Your task to perform on an android device: find snoozed emails in the gmail app Image 0: 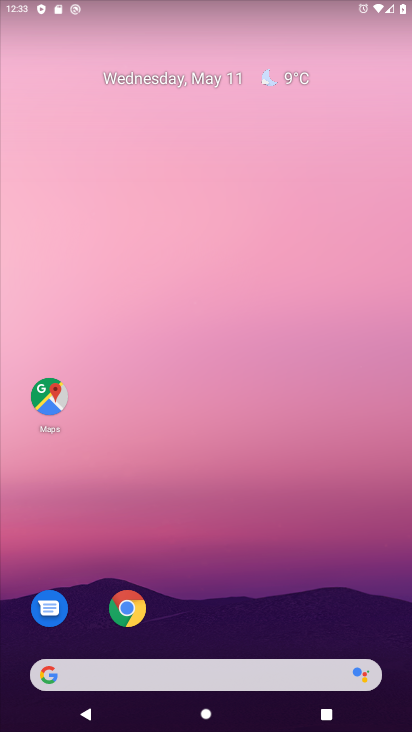
Step 0: drag from (273, 564) to (238, 398)
Your task to perform on an android device: find snoozed emails in the gmail app Image 1: 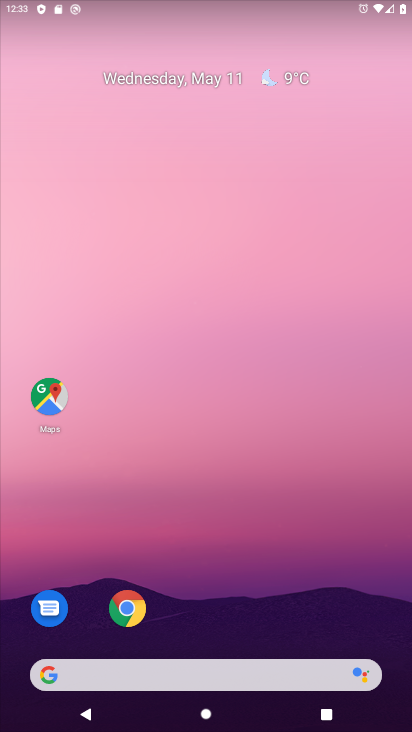
Step 1: drag from (256, 587) to (309, 364)
Your task to perform on an android device: find snoozed emails in the gmail app Image 2: 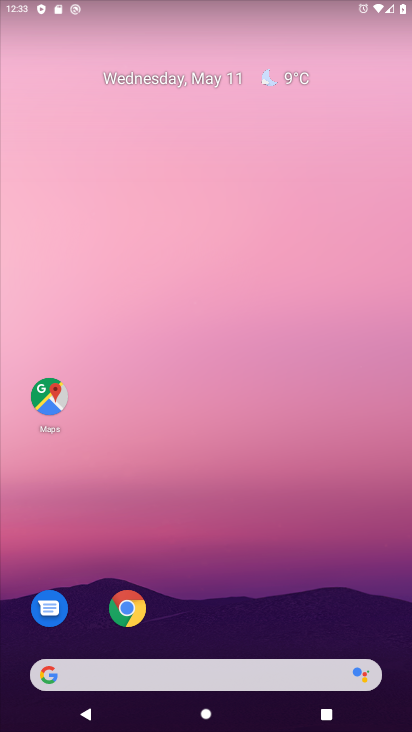
Step 2: drag from (284, 527) to (269, 347)
Your task to perform on an android device: find snoozed emails in the gmail app Image 3: 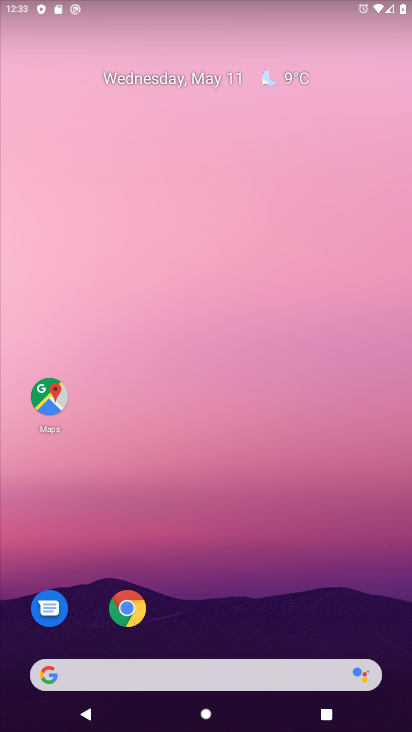
Step 3: drag from (239, 645) to (249, 342)
Your task to perform on an android device: find snoozed emails in the gmail app Image 4: 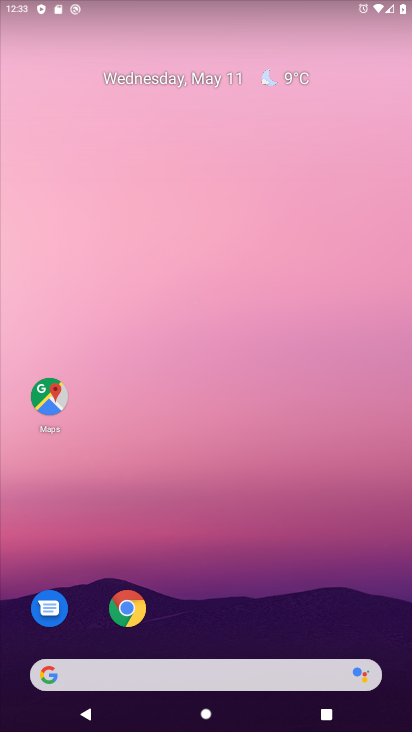
Step 4: drag from (267, 646) to (272, 324)
Your task to perform on an android device: find snoozed emails in the gmail app Image 5: 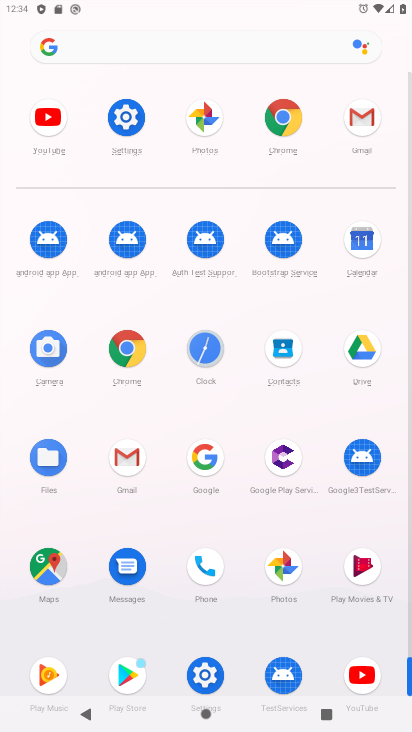
Step 5: click (150, 473)
Your task to perform on an android device: find snoozed emails in the gmail app Image 6: 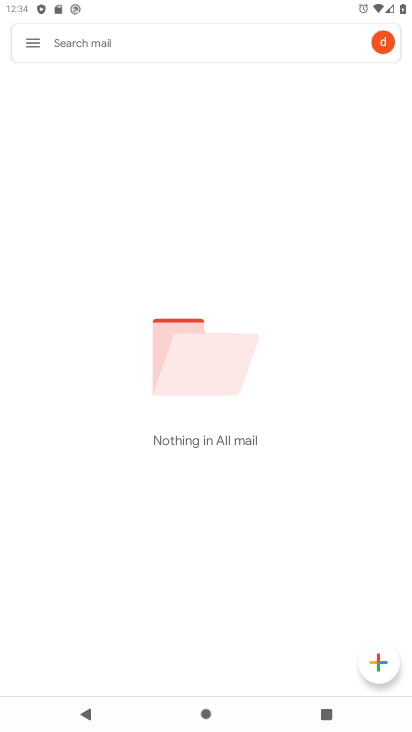
Step 6: click (32, 46)
Your task to perform on an android device: find snoozed emails in the gmail app Image 7: 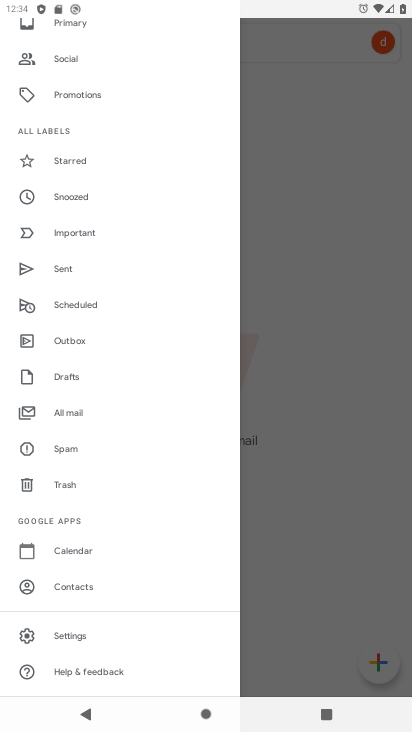
Step 7: click (68, 199)
Your task to perform on an android device: find snoozed emails in the gmail app Image 8: 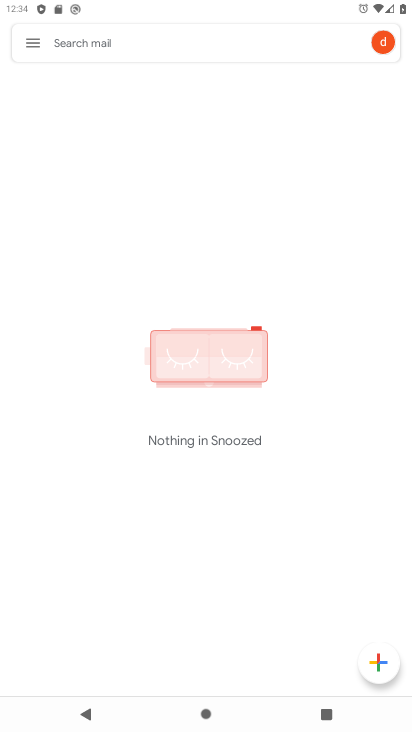
Step 8: task complete